Your task to perform on an android device: Turn off the flashlight Image 0: 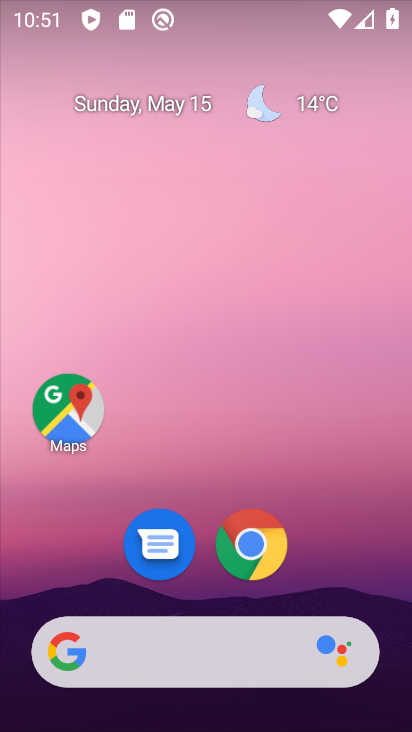
Step 0: drag from (317, 56) to (305, 578)
Your task to perform on an android device: Turn off the flashlight Image 1: 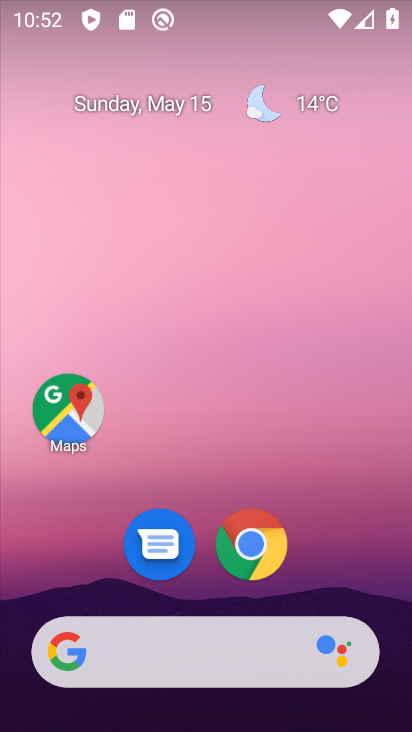
Step 1: task complete